Your task to perform on an android device: Go to network settings Image 0: 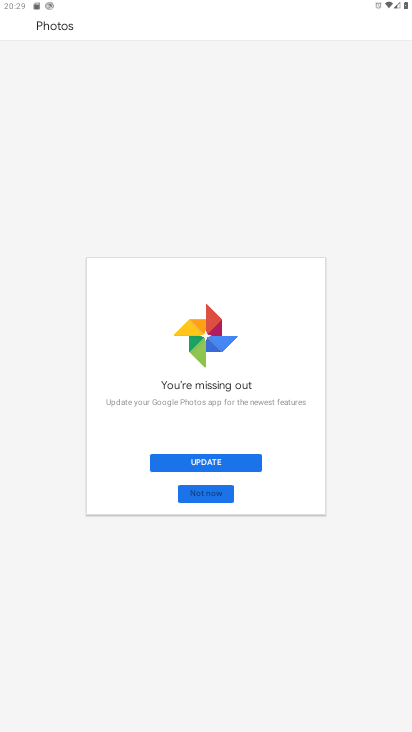
Step 0: press home button
Your task to perform on an android device: Go to network settings Image 1: 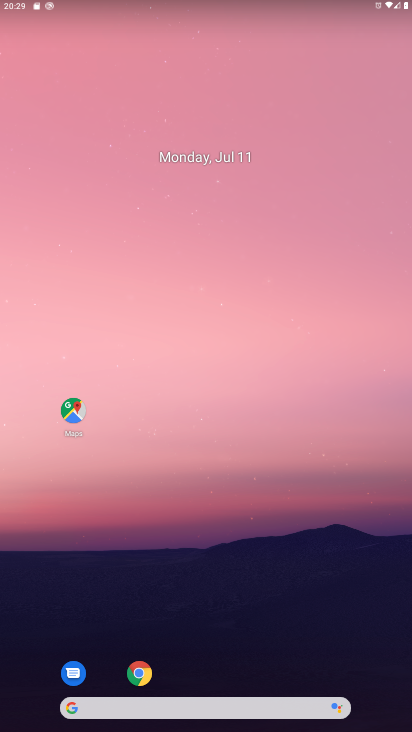
Step 1: drag from (218, 673) to (197, 61)
Your task to perform on an android device: Go to network settings Image 2: 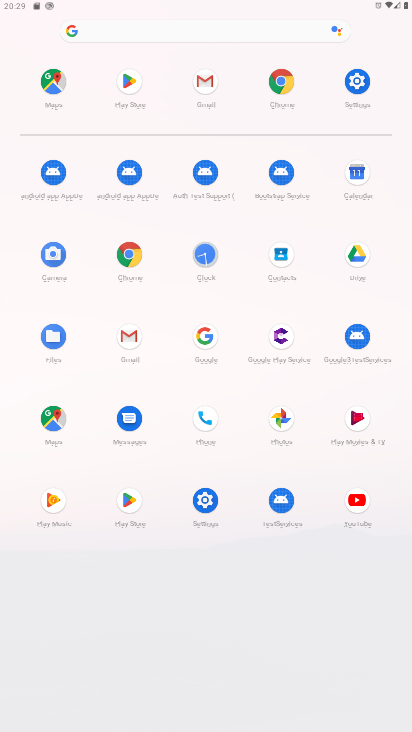
Step 2: click (353, 81)
Your task to perform on an android device: Go to network settings Image 3: 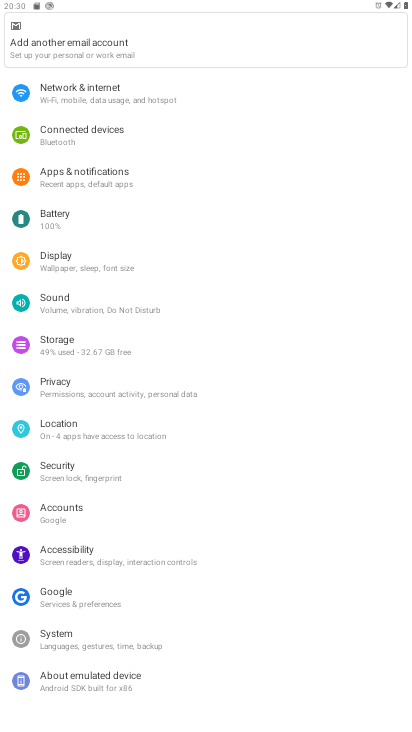
Step 3: click (140, 89)
Your task to perform on an android device: Go to network settings Image 4: 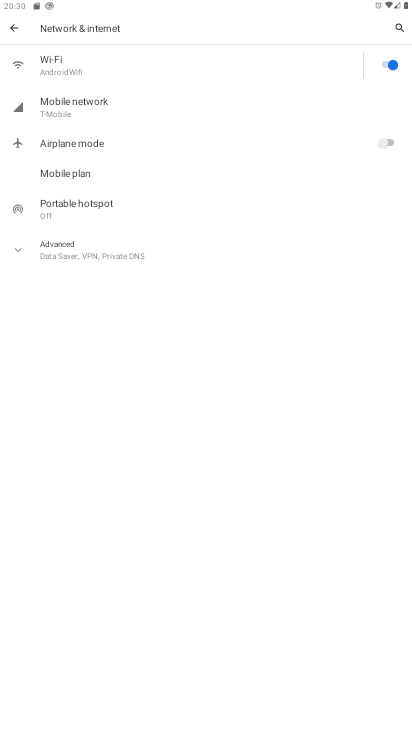
Step 4: click (55, 255)
Your task to perform on an android device: Go to network settings Image 5: 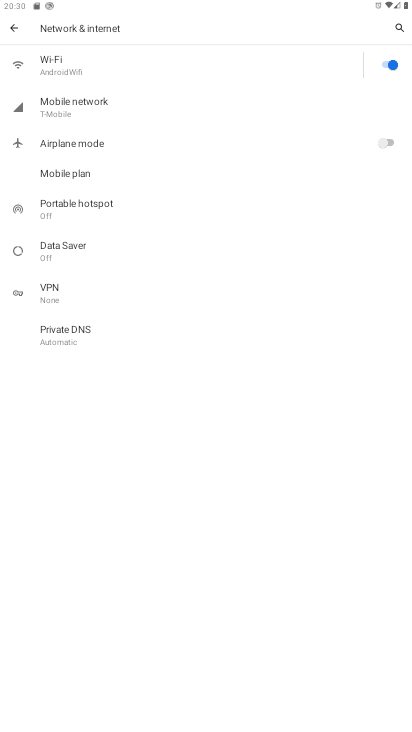
Step 5: task complete